Your task to perform on an android device: turn off javascript in the chrome app Image 0: 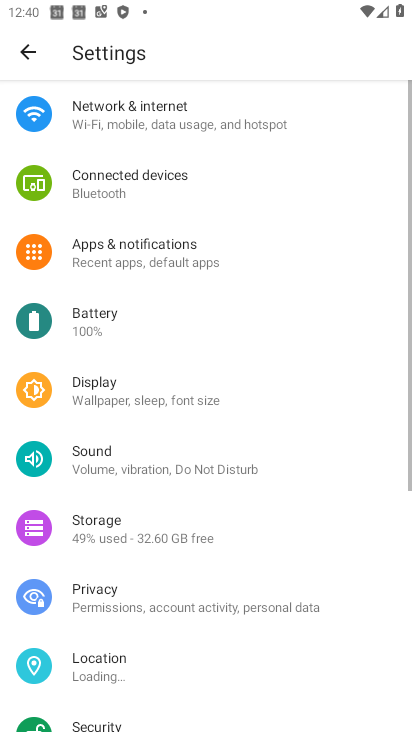
Step 0: press home button
Your task to perform on an android device: turn off javascript in the chrome app Image 1: 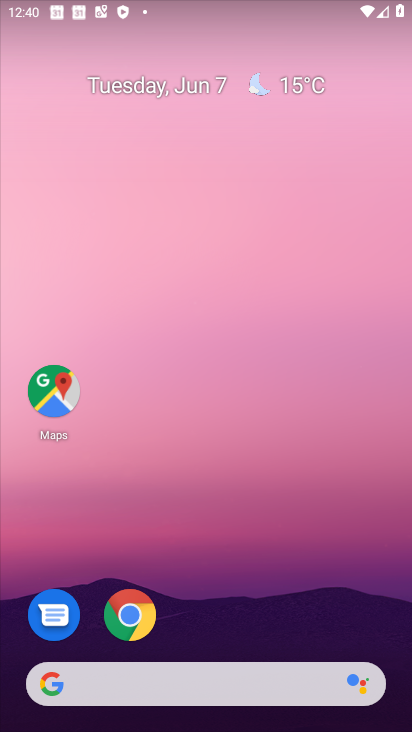
Step 1: click (134, 623)
Your task to perform on an android device: turn off javascript in the chrome app Image 2: 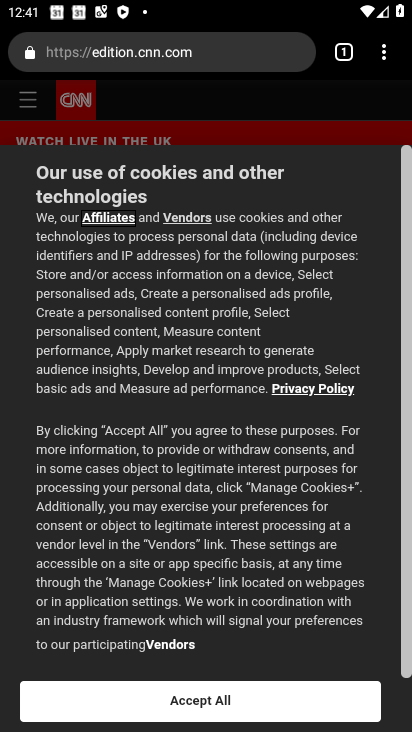
Step 2: click (387, 51)
Your task to perform on an android device: turn off javascript in the chrome app Image 3: 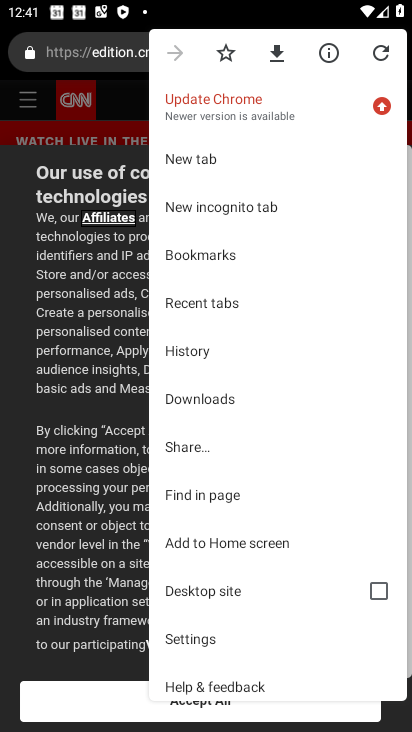
Step 3: click (183, 643)
Your task to perform on an android device: turn off javascript in the chrome app Image 4: 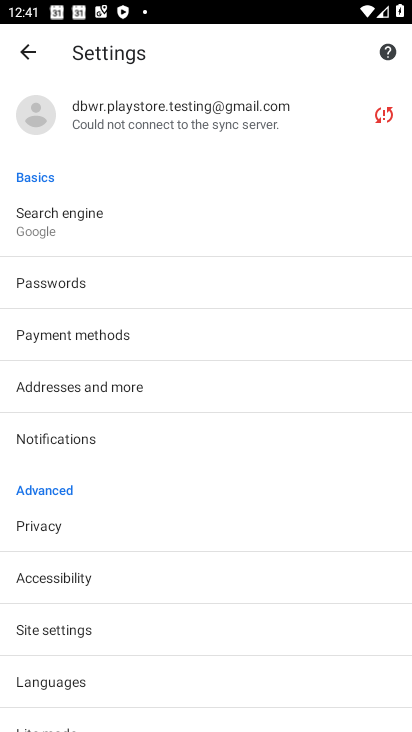
Step 4: drag from (172, 622) to (166, 276)
Your task to perform on an android device: turn off javascript in the chrome app Image 5: 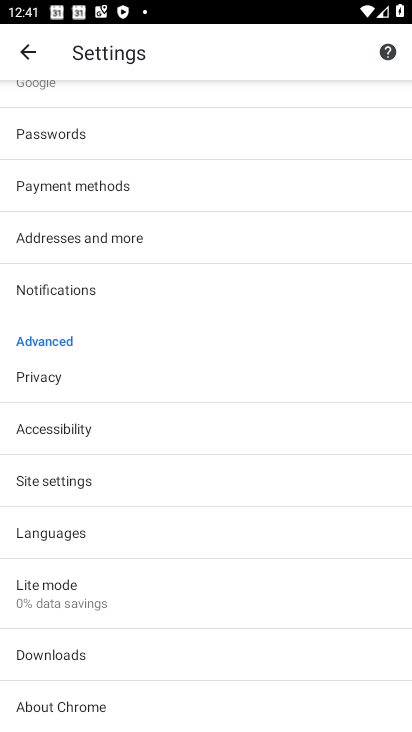
Step 5: drag from (176, 668) to (173, 278)
Your task to perform on an android device: turn off javascript in the chrome app Image 6: 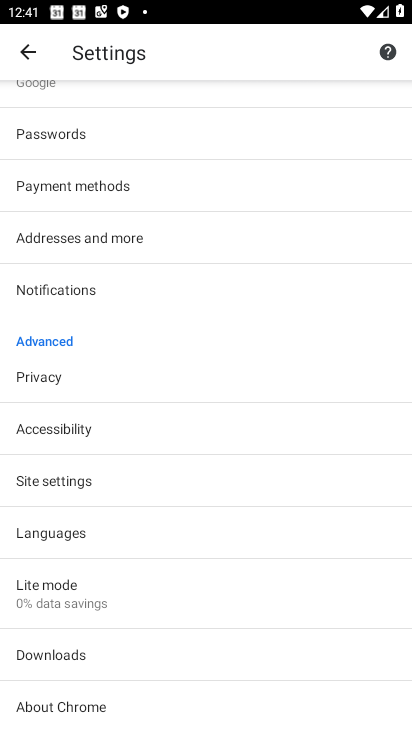
Step 6: click (66, 480)
Your task to perform on an android device: turn off javascript in the chrome app Image 7: 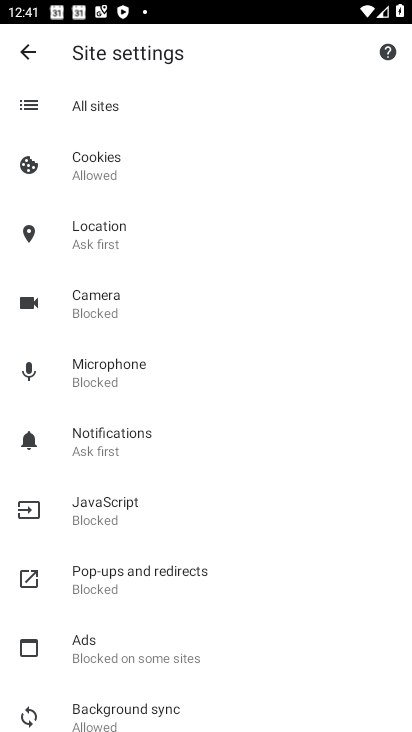
Step 7: click (113, 503)
Your task to perform on an android device: turn off javascript in the chrome app Image 8: 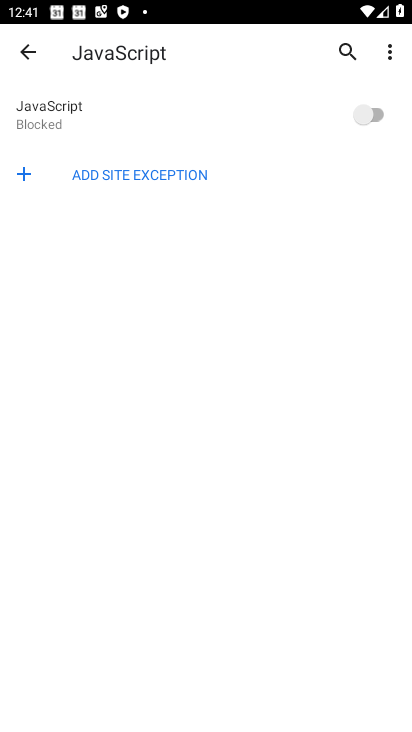
Step 8: task complete